Your task to perform on an android device: add a contact in the contacts app Image 0: 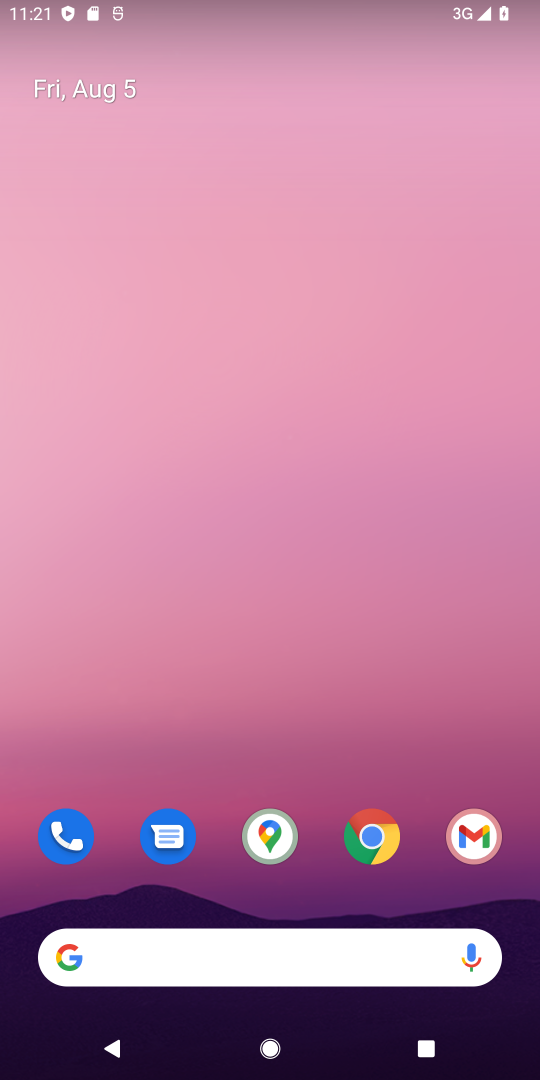
Step 0: press home button
Your task to perform on an android device: add a contact in the contacts app Image 1: 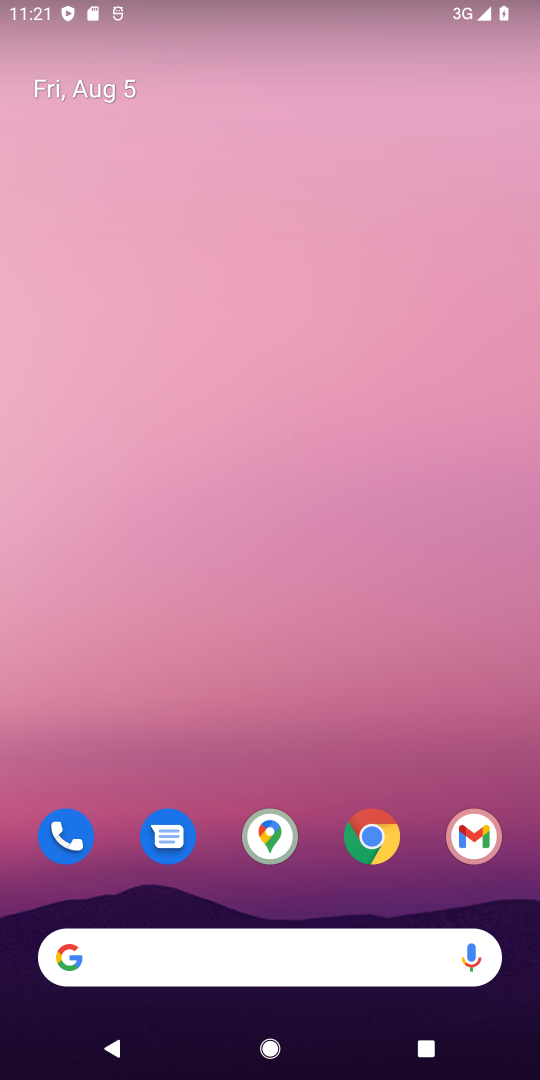
Step 1: drag from (409, 882) to (492, 76)
Your task to perform on an android device: add a contact in the contacts app Image 2: 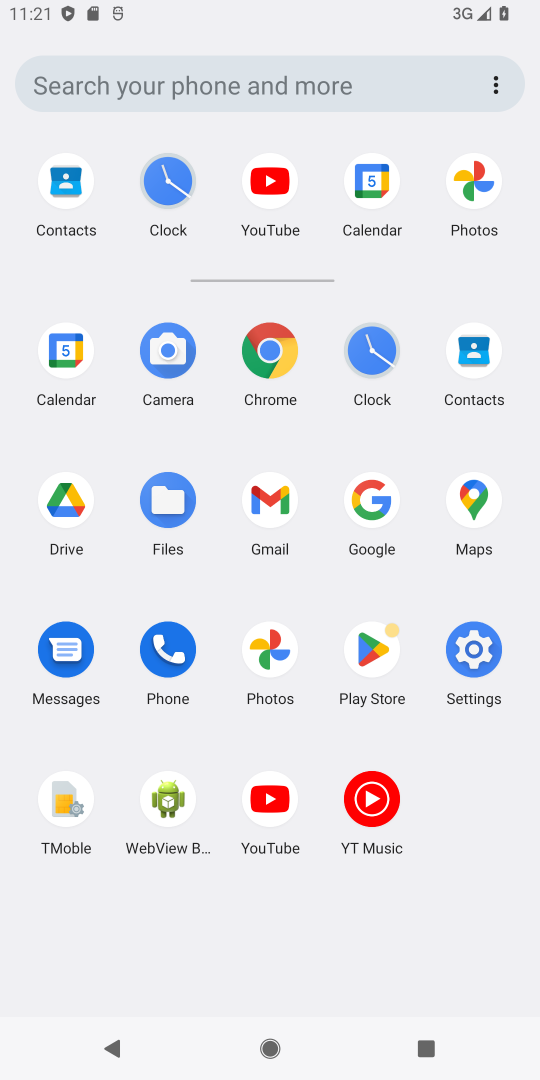
Step 2: click (478, 354)
Your task to perform on an android device: add a contact in the contacts app Image 3: 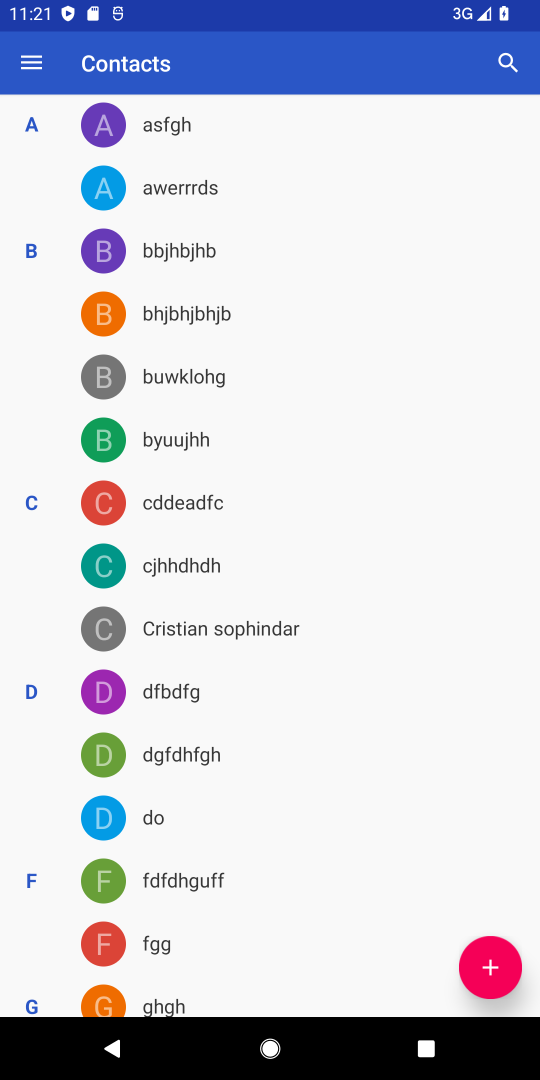
Step 3: click (503, 951)
Your task to perform on an android device: add a contact in the contacts app Image 4: 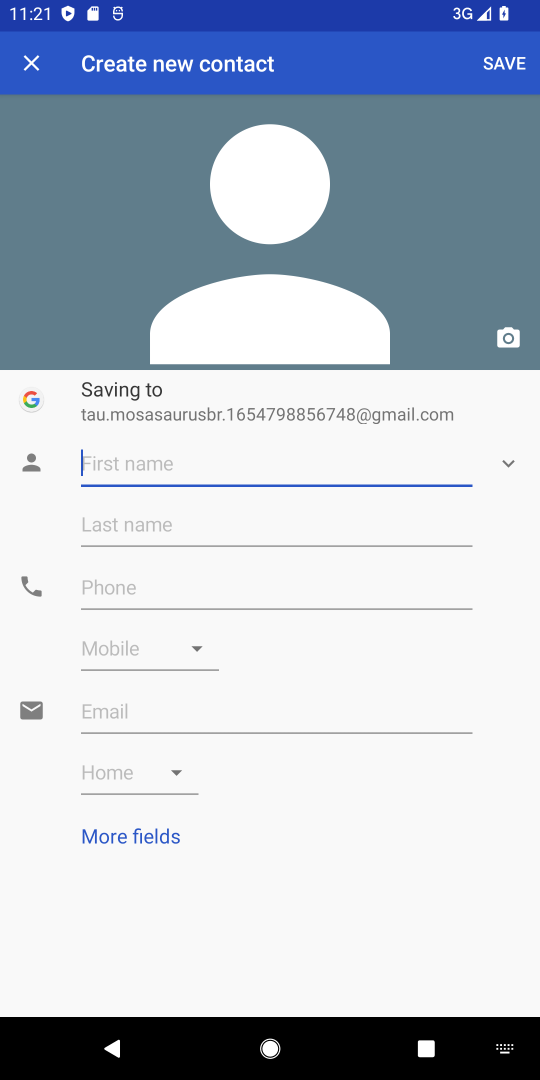
Step 4: type "power"
Your task to perform on an android device: add a contact in the contacts app Image 5: 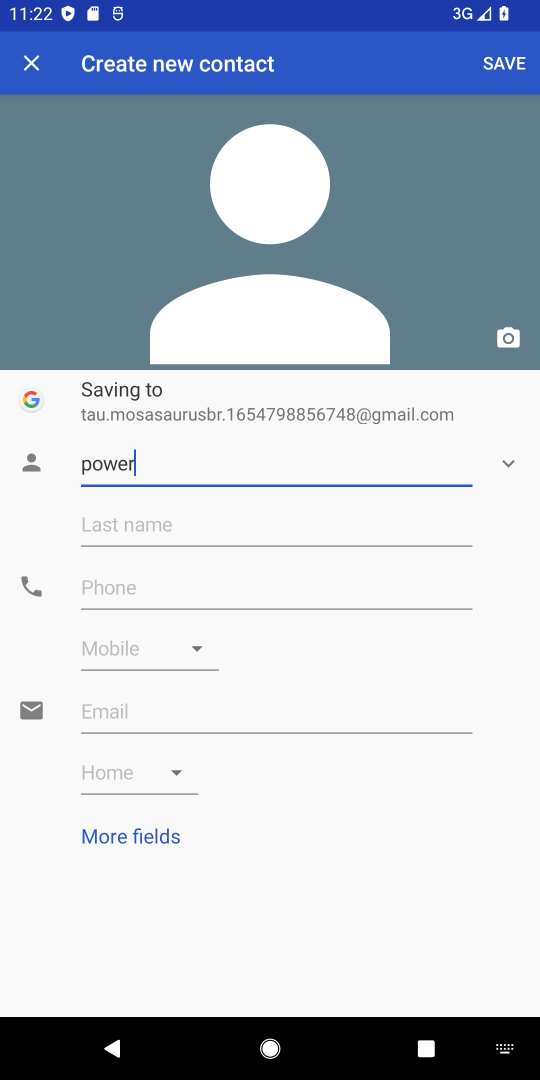
Step 5: press enter
Your task to perform on an android device: add a contact in the contacts app Image 6: 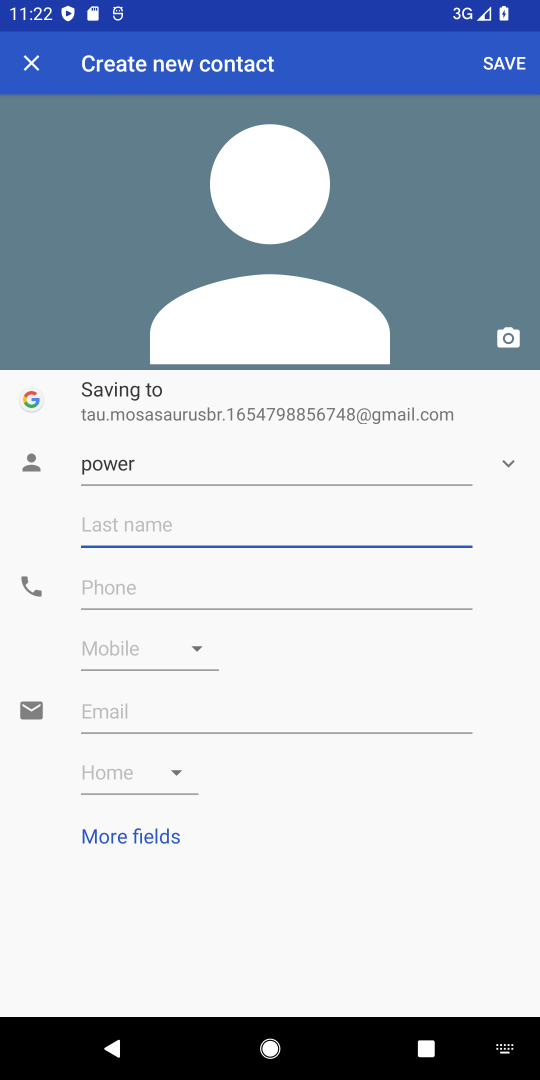
Step 6: click (507, 71)
Your task to perform on an android device: add a contact in the contacts app Image 7: 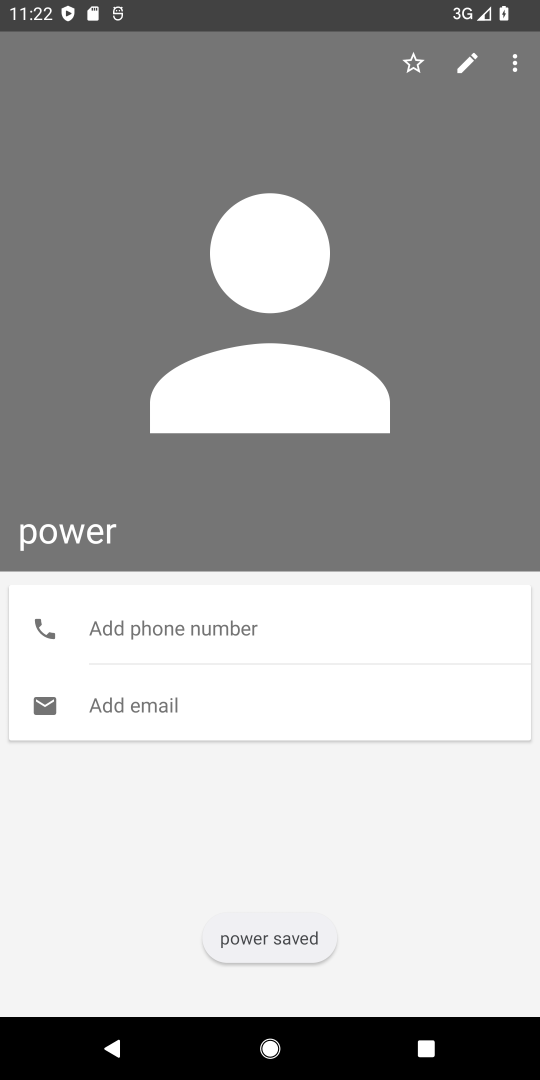
Step 7: task complete